Your task to perform on an android device: Go to settings Image 0: 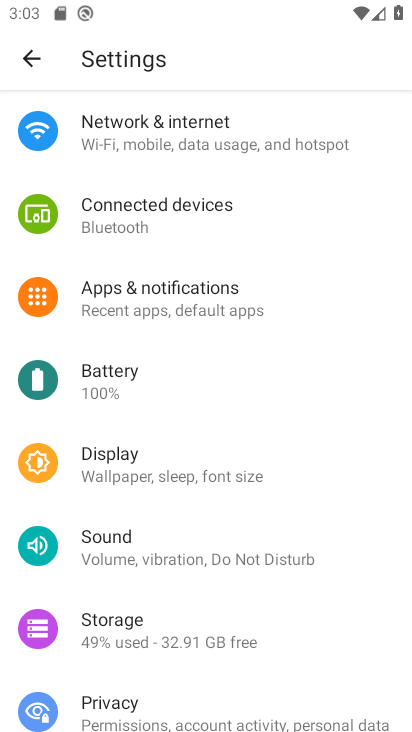
Step 0: drag from (296, 459) to (280, 60)
Your task to perform on an android device: Go to settings Image 1: 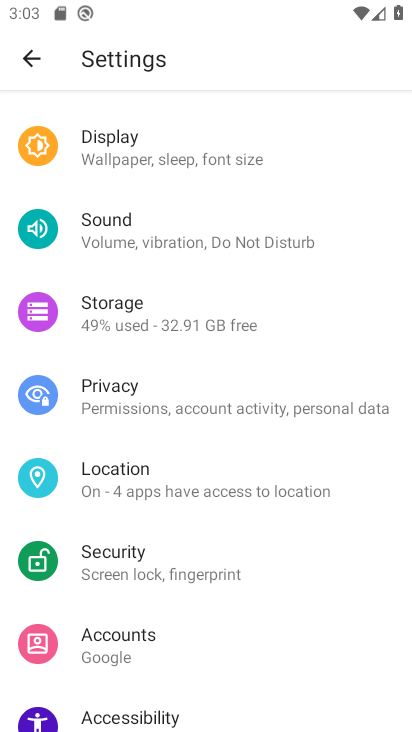
Step 1: task complete